Your task to perform on an android device: Show me recent news Image 0: 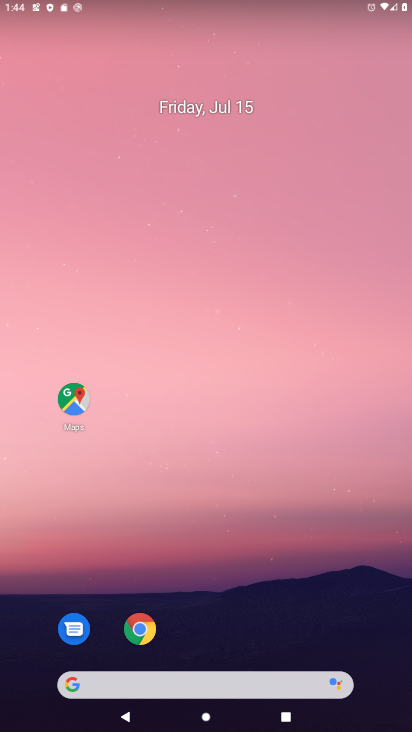
Step 0: drag from (262, 609) to (206, 78)
Your task to perform on an android device: Show me recent news Image 1: 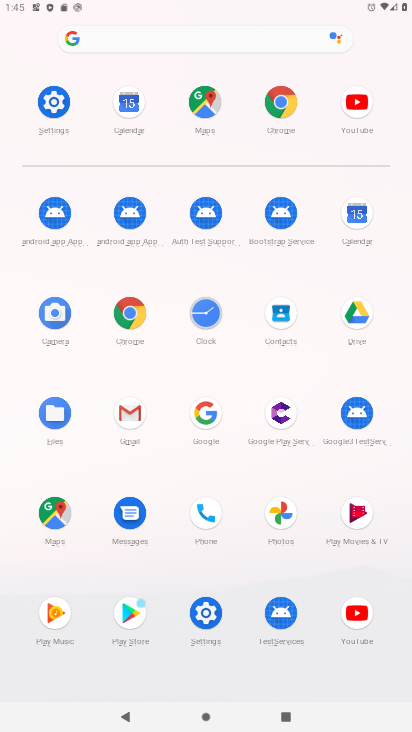
Step 1: click (276, 107)
Your task to perform on an android device: Show me recent news Image 2: 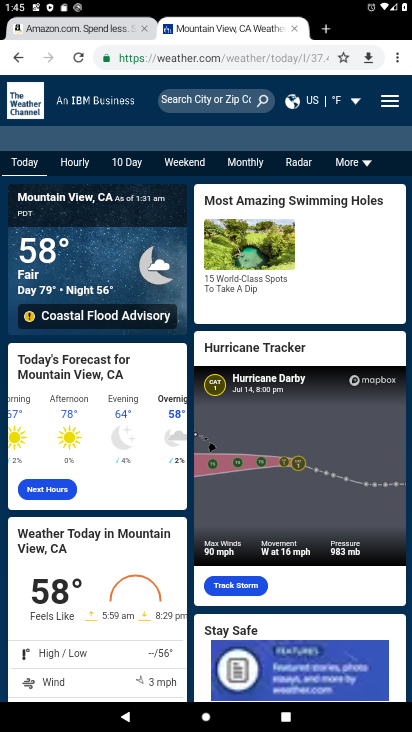
Step 2: click (277, 56)
Your task to perform on an android device: Show me recent news Image 3: 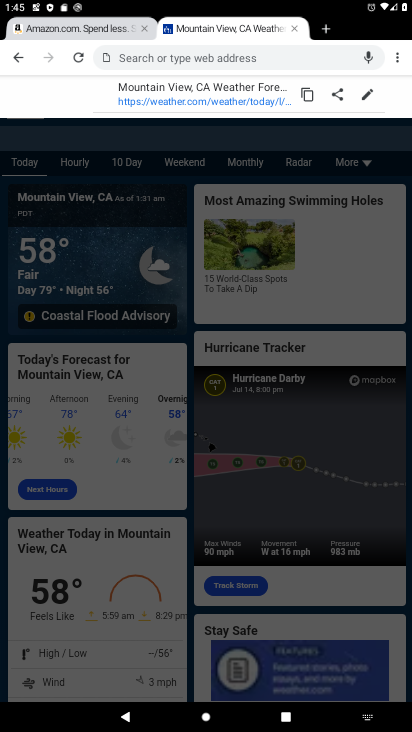
Step 3: type "news"
Your task to perform on an android device: Show me recent news Image 4: 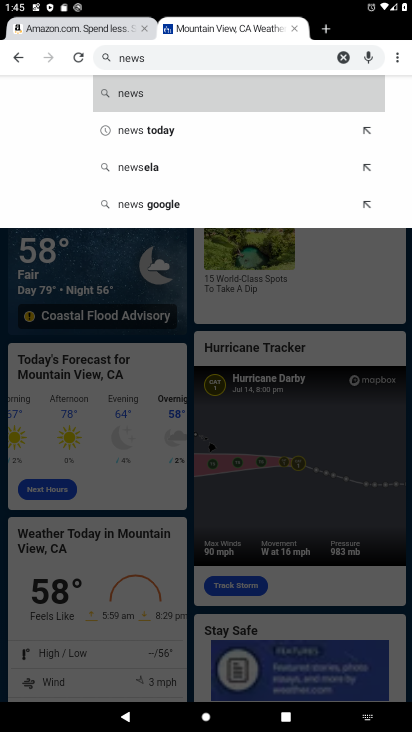
Step 4: click (158, 98)
Your task to perform on an android device: Show me recent news Image 5: 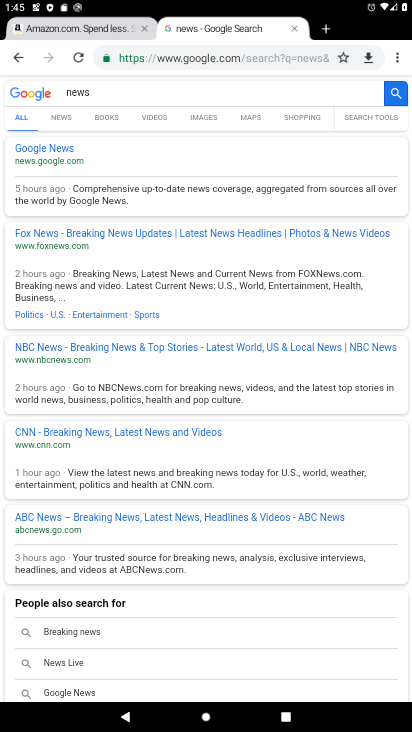
Step 5: click (53, 151)
Your task to perform on an android device: Show me recent news Image 6: 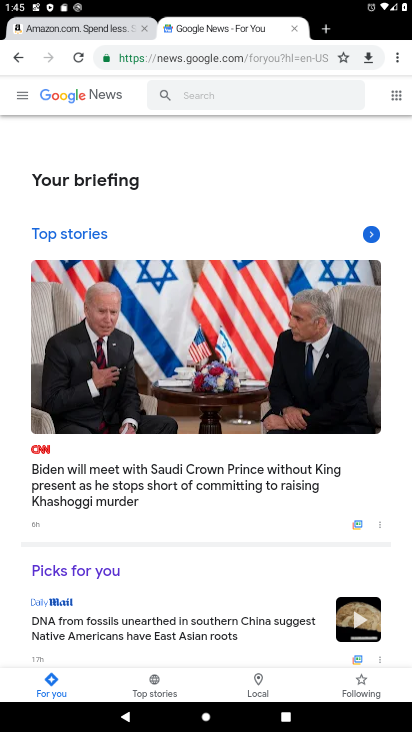
Step 6: task complete